Your task to perform on an android device: turn off translation in the chrome app Image 0: 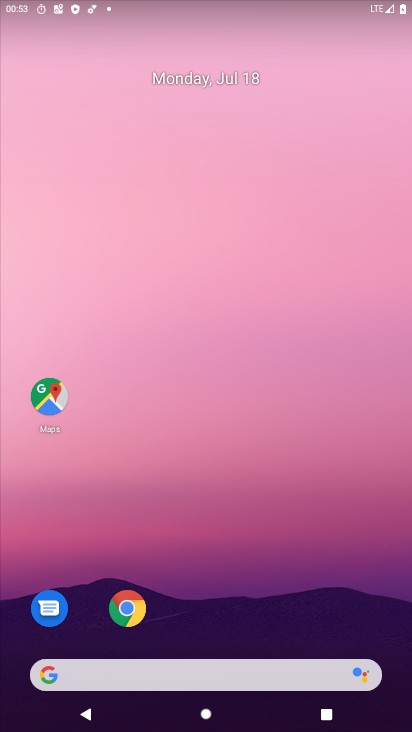
Step 0: drag from (270, 619) to (408, 13)
Your task to perform on an android device: turn off translation in the chrome app Image 1: 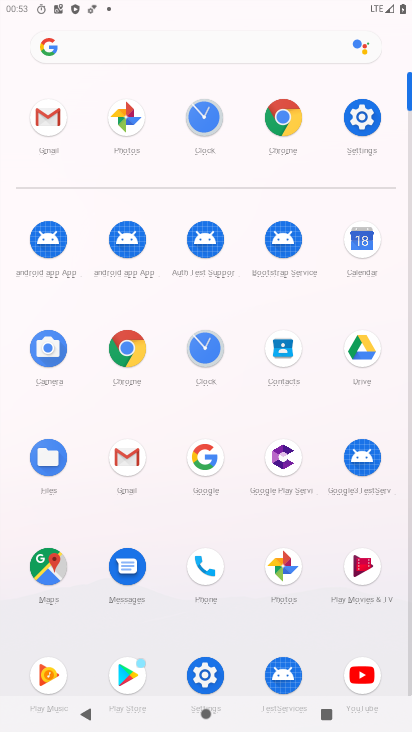
Step 1: click (301, 121)
Your task to perform on an android device: turn off translation in the chrome app Image 2: 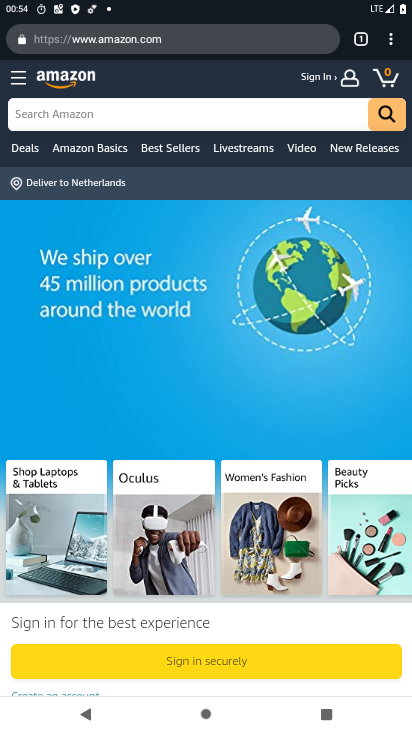
Step 2: drag from (394, 46) to (253, 472)
Your task to perform on an android device: turn off translation in the chrome app Image 3: 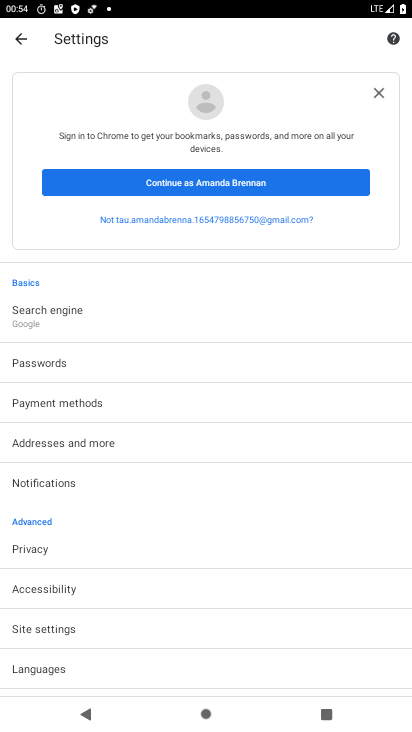
Step 3: drag from (120, 660) to (194, 243)
Your task to perform on an android device: turn off translation in the chrome app Image 4: 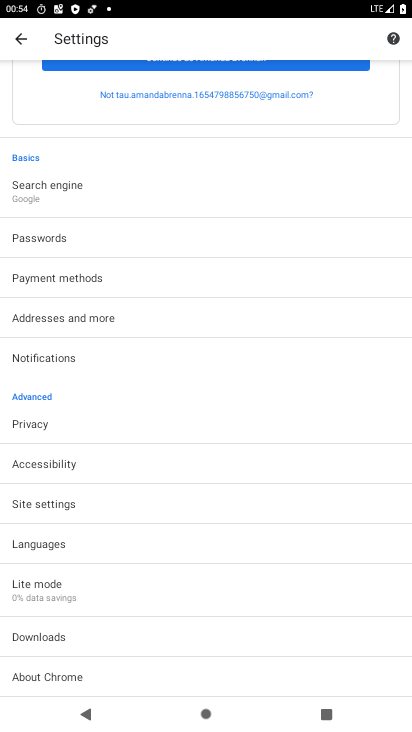
Step 4: click (76, 539)
Your task to perform on an android device: turn off translation in the chrome app Image 5: 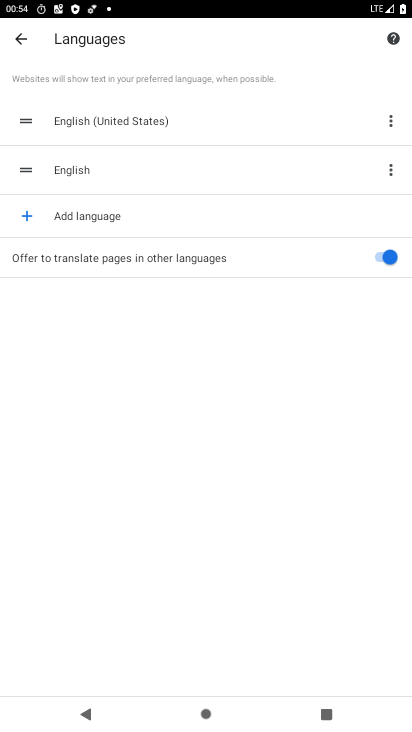
Step 5: click (375, 270)
Your task to perform on an android device: turn off translation in the chrome app Image 6: 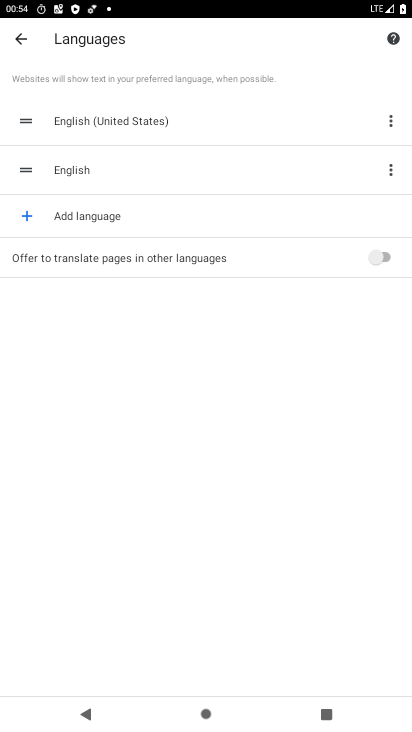
Step 6: task complete